Your task to perform on an android device: Is it going to rain tomorrow? Image 0: 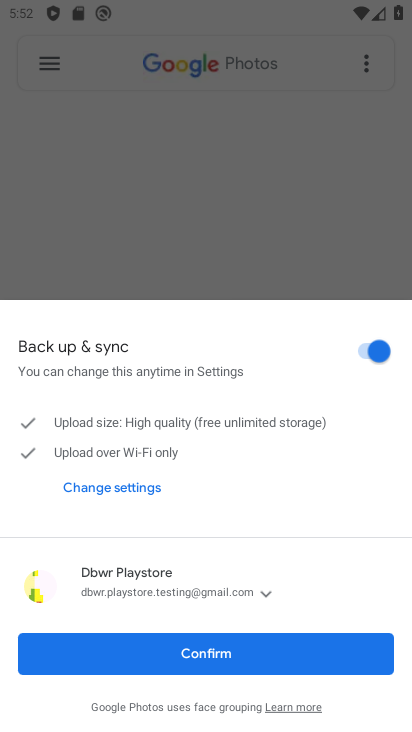
Step 0: press home button
Your task to perform on an android device: Is it going to rain tomorrow? Image 1: 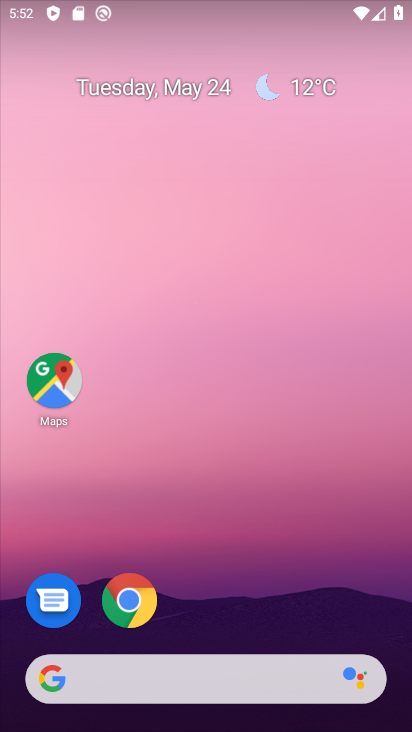
Step 1: drag from (199, 594) to (267, 6)
Your task to perform on an android device: Is it going to rain tomorrow? Image 2: 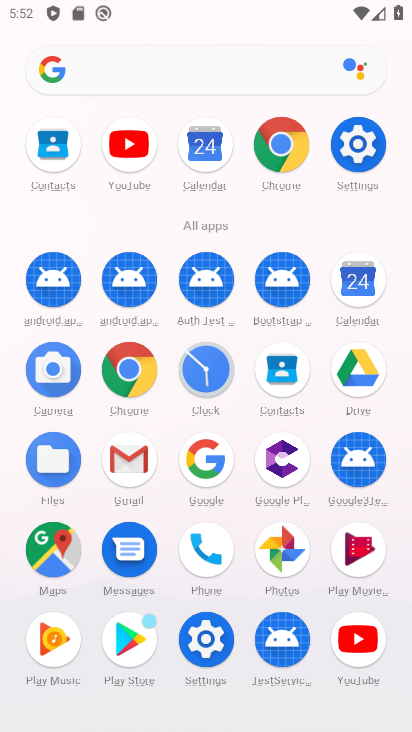
Step 2: press home button
Your task to perform on an android device: Is it going to rain tomorrow? Image 3: 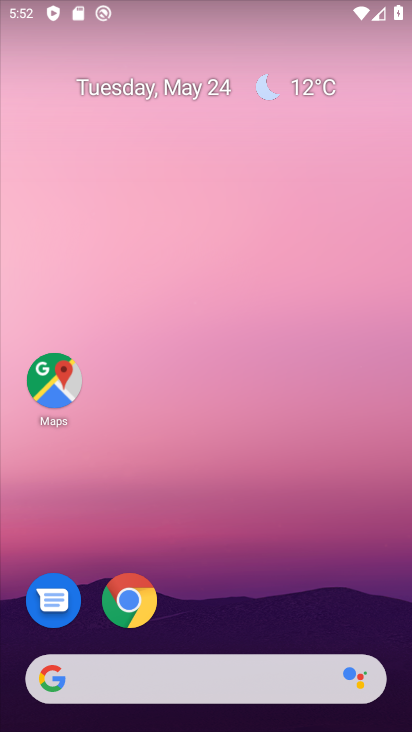
Step 3: drag from (36, 253) to (351, 281)
Your task to perform on an android device: Is it going to rain tomorrow? Image 4: 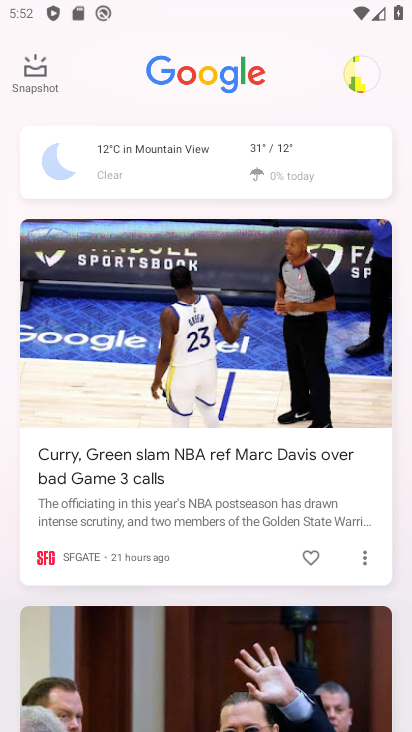
Step 4: click (241, 159)
Your task to perform on an android device: Is it going to rain tomorrow? Image 5: 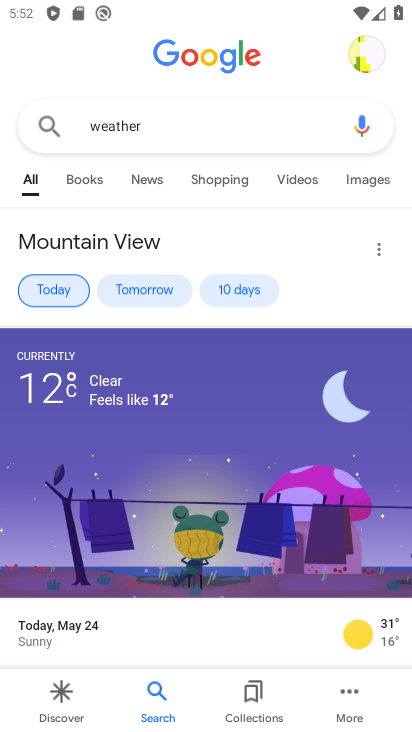
Step 5: click (145, 283)
Your task to perform on an android device: Is it going to rain tomorrow? Image 6: 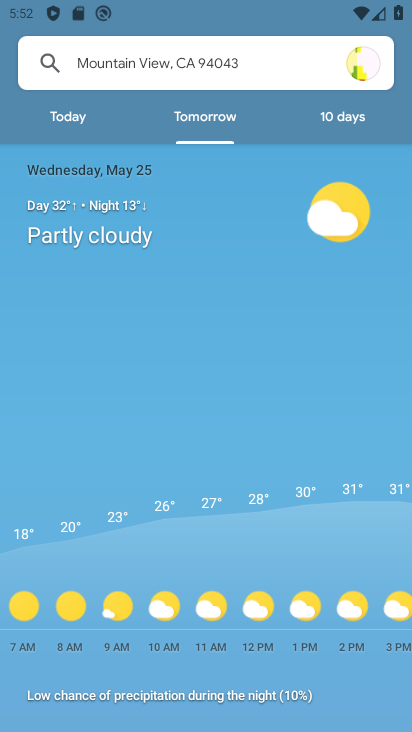
Step 6: task complete